Your task to perform on an android device: open device folders in google photos Image 0: 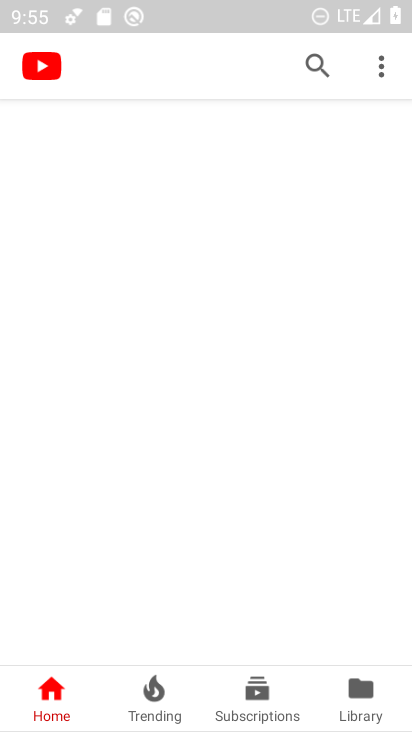
Step 0: drag from (354, 590) to (279, 117)
Your task to perform on an android device: open device folders in google photos Image 1: 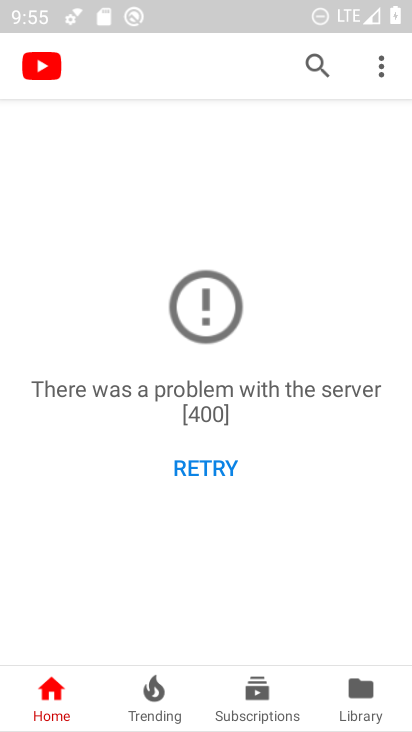
Step 1: press home button
Your task to perform on an android device: open device folders in google photos Image 2: 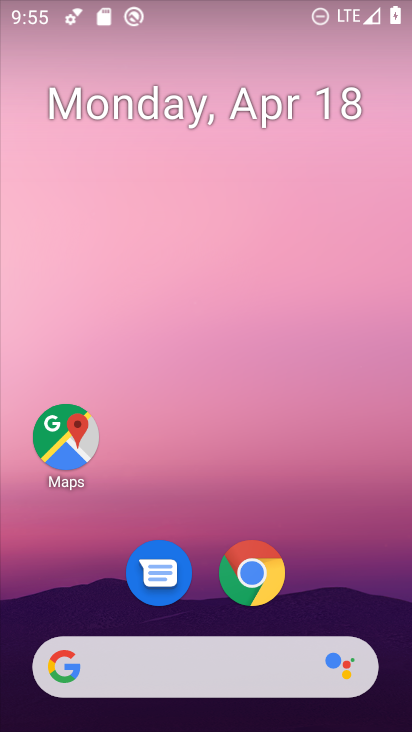
Step 2: drag from (355, 527) to (125, 12)
Your task to perform on an android device: open device folders in google photos Image 3: 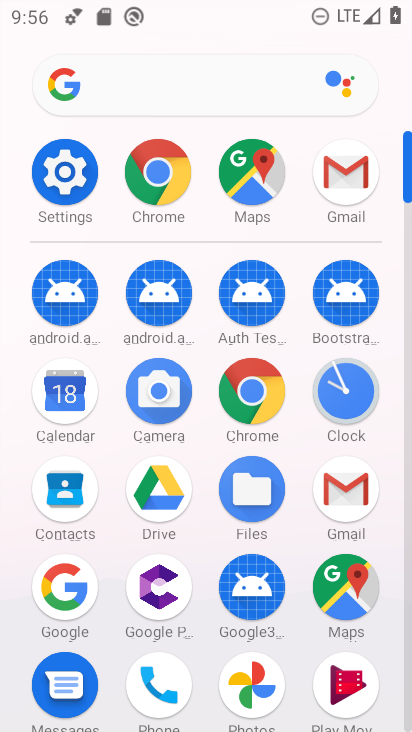
Step 3: click (253, 673)
Your task to perform on an android device: open device folders in google photos Image 4: 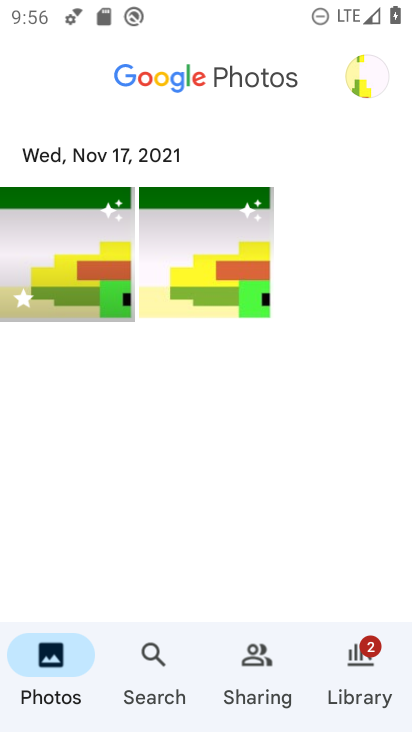
Step 4: click (362, 81)
Your task to perform on an android device: open device folders in google photos Image 5: 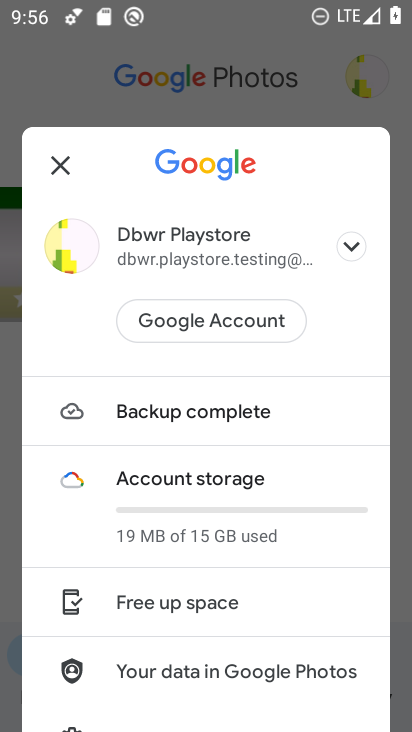
Step 5: task complete